Your task to perform on an android device: find which apps use the phone's location Image 0: 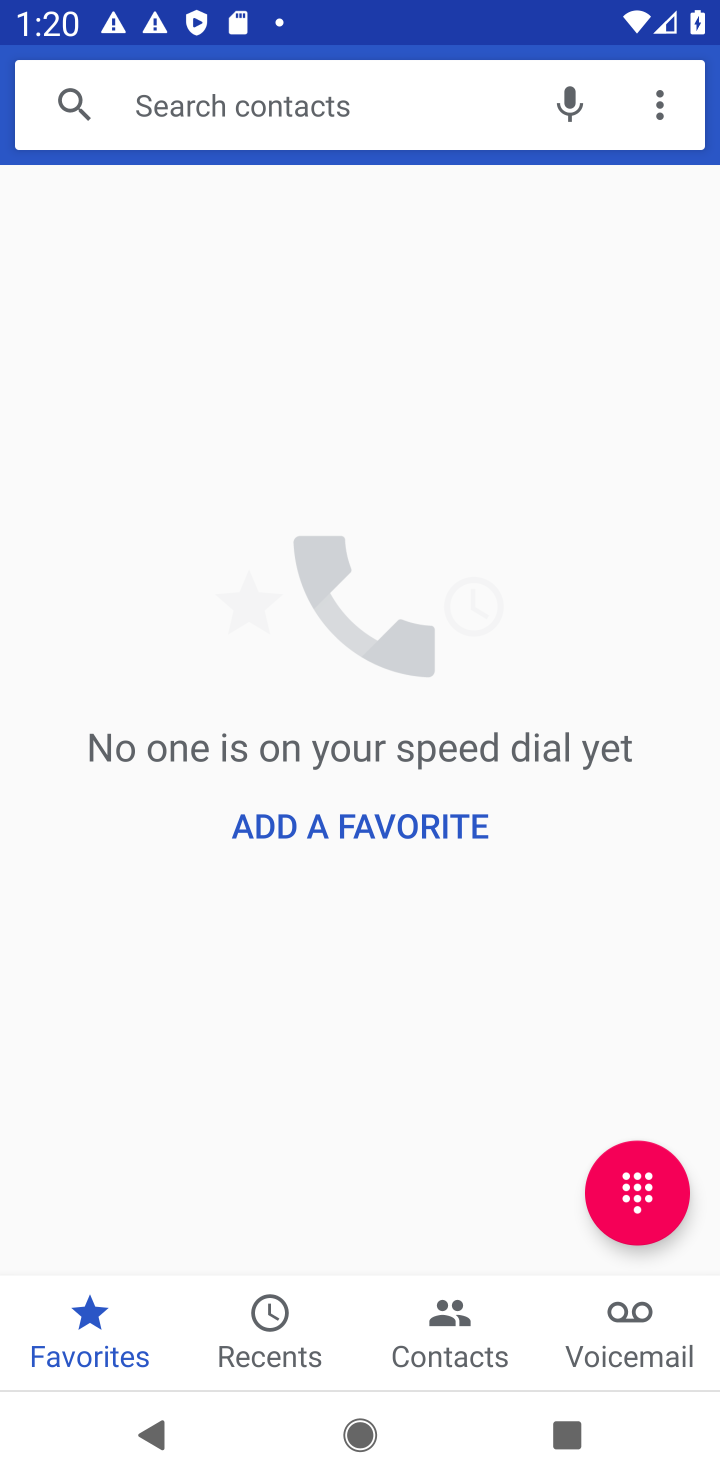
Step 0: press home button
Your task to perform on an android device: find which apps use the phone's location Image 1: 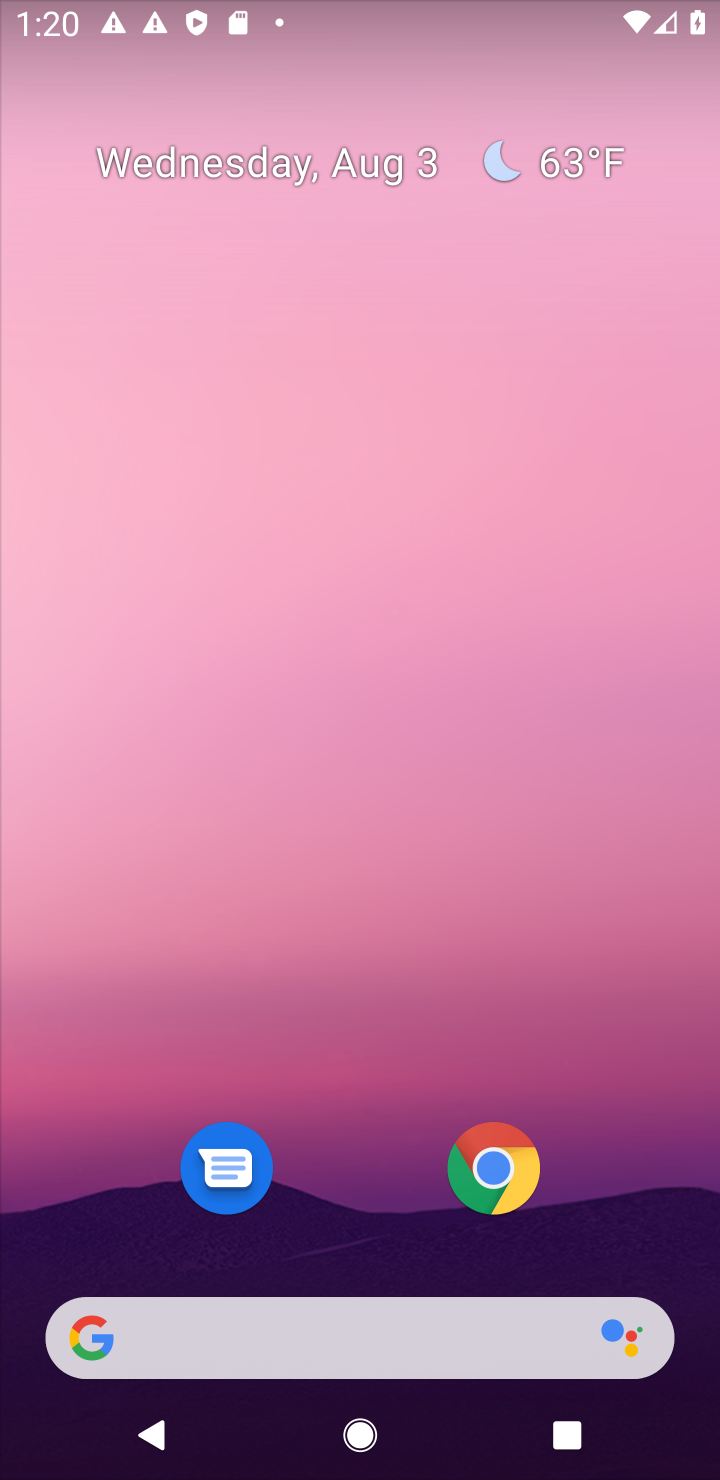
Step 1: drag from (615, 1218) to (564, 428)
Your task to perform on an android device: find which apps use the phone's location Image 2: 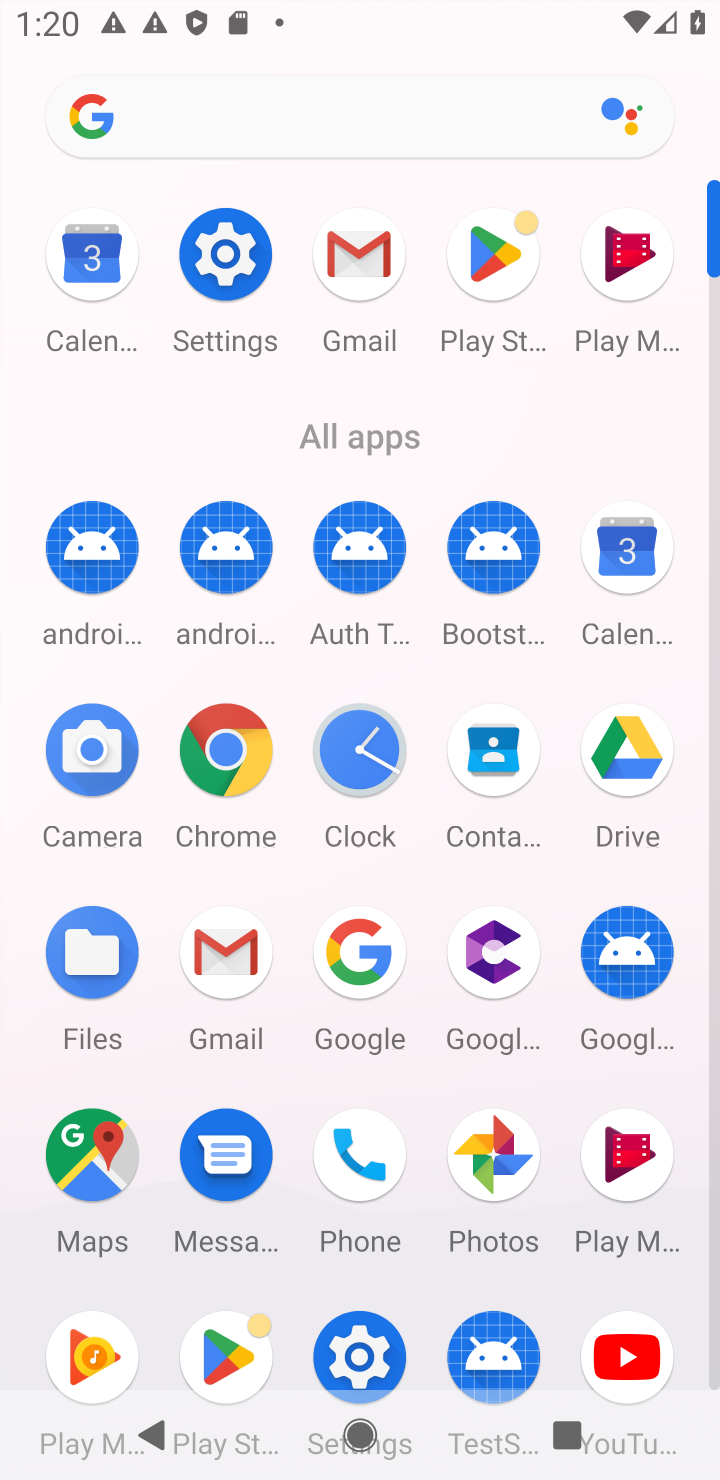
Step 2: click (351, 1344)
Your task to perform on an android device: find which apps use the phone's location Image 3: 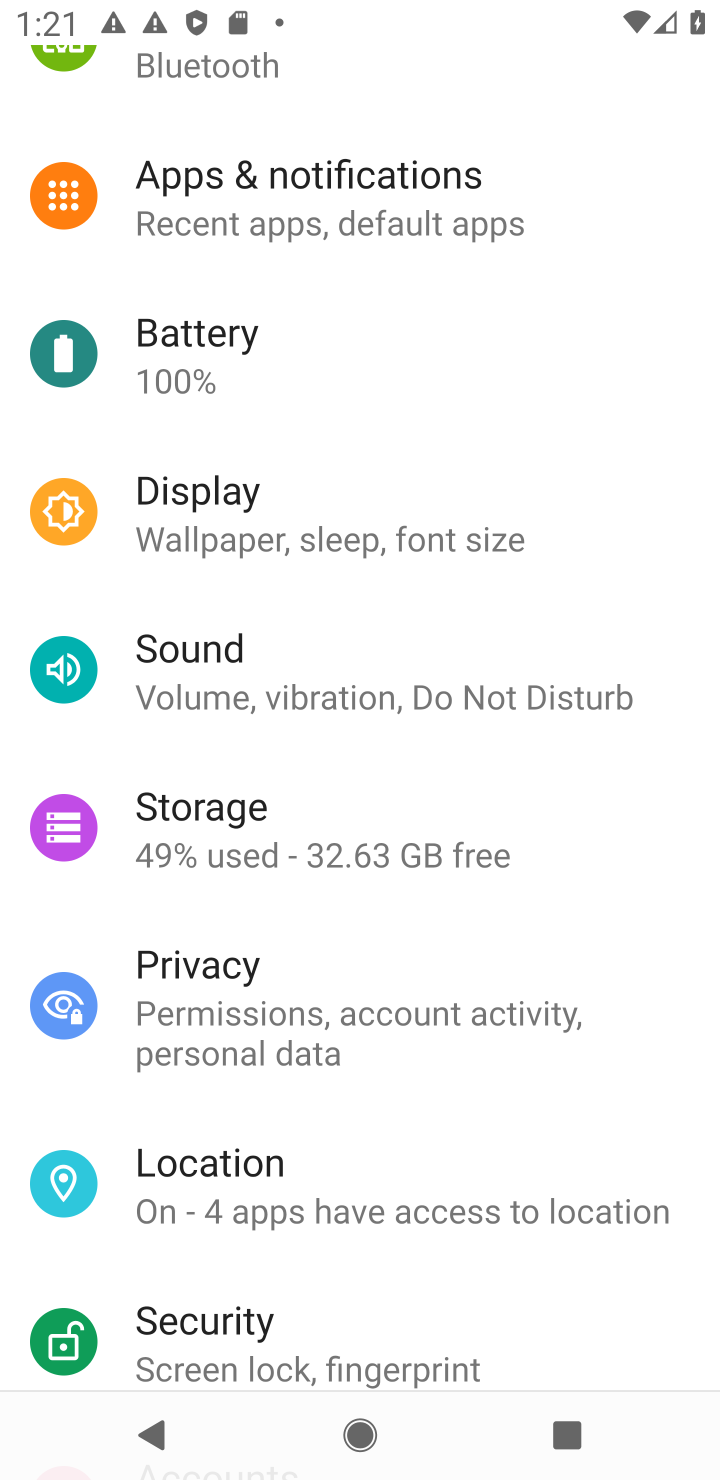
Step 3: click (232, 1157)
Your task to perform on an android device: find which apps use the phone's location Image 4: 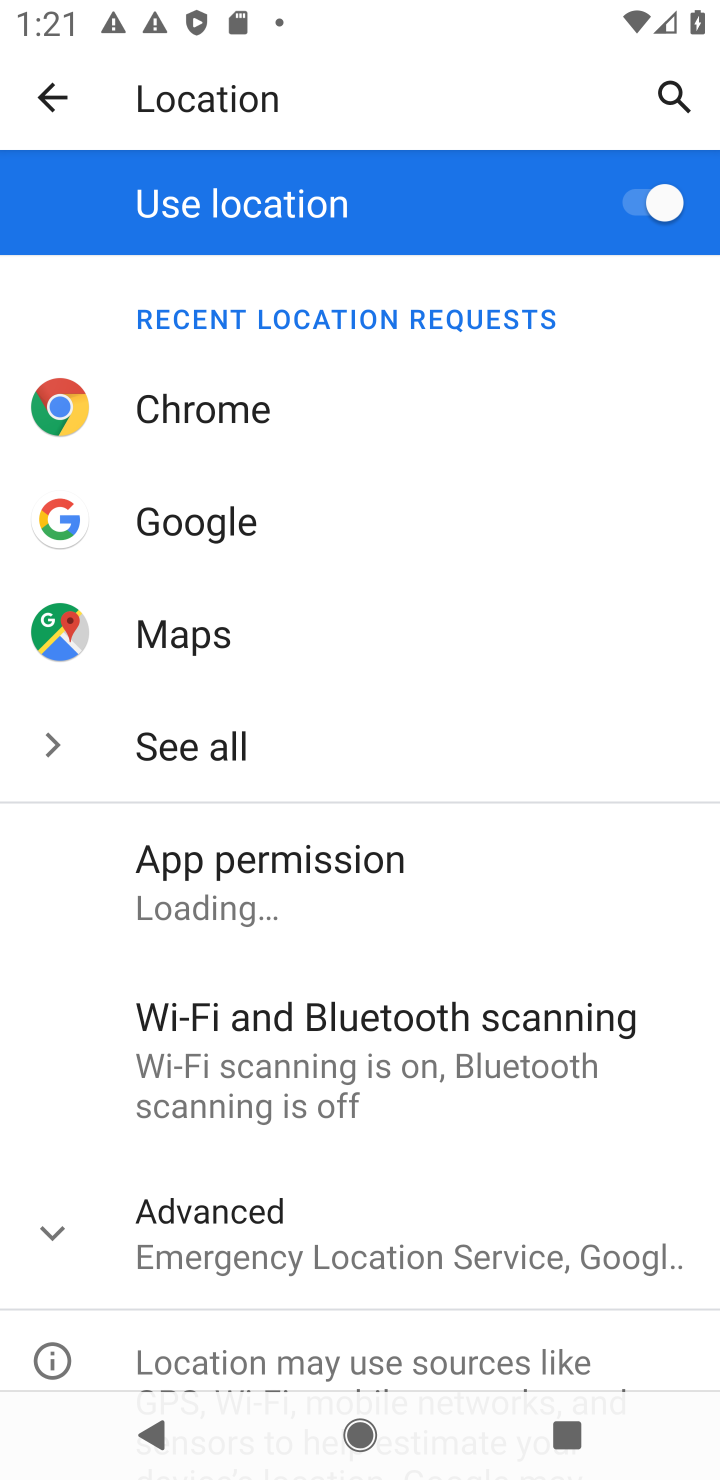
Step 4: click (41, 1231)
Your task to perform on an android device: find which apps use the phone's location Image 5: 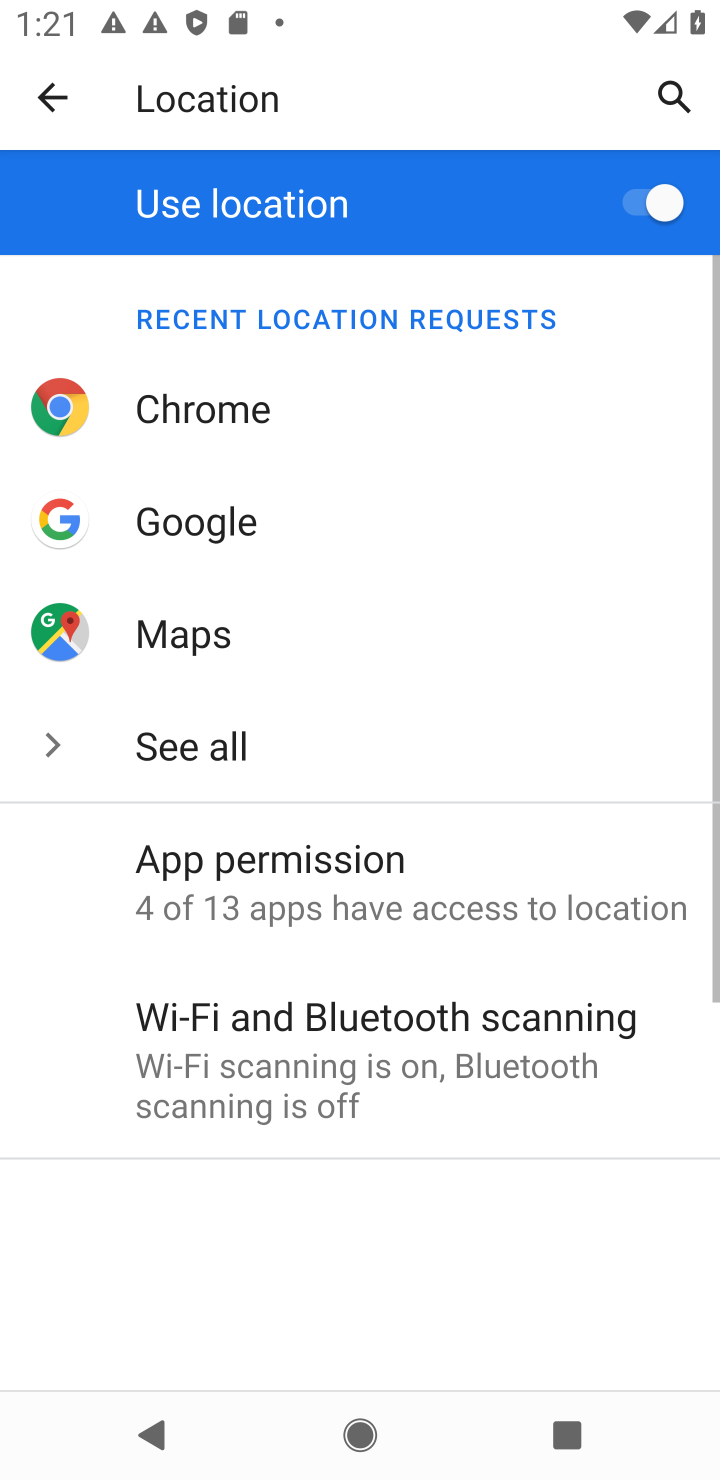
Step 5: click (235, 896)
Your task to perform on an android device: find which apps use the phone's location Image 6: 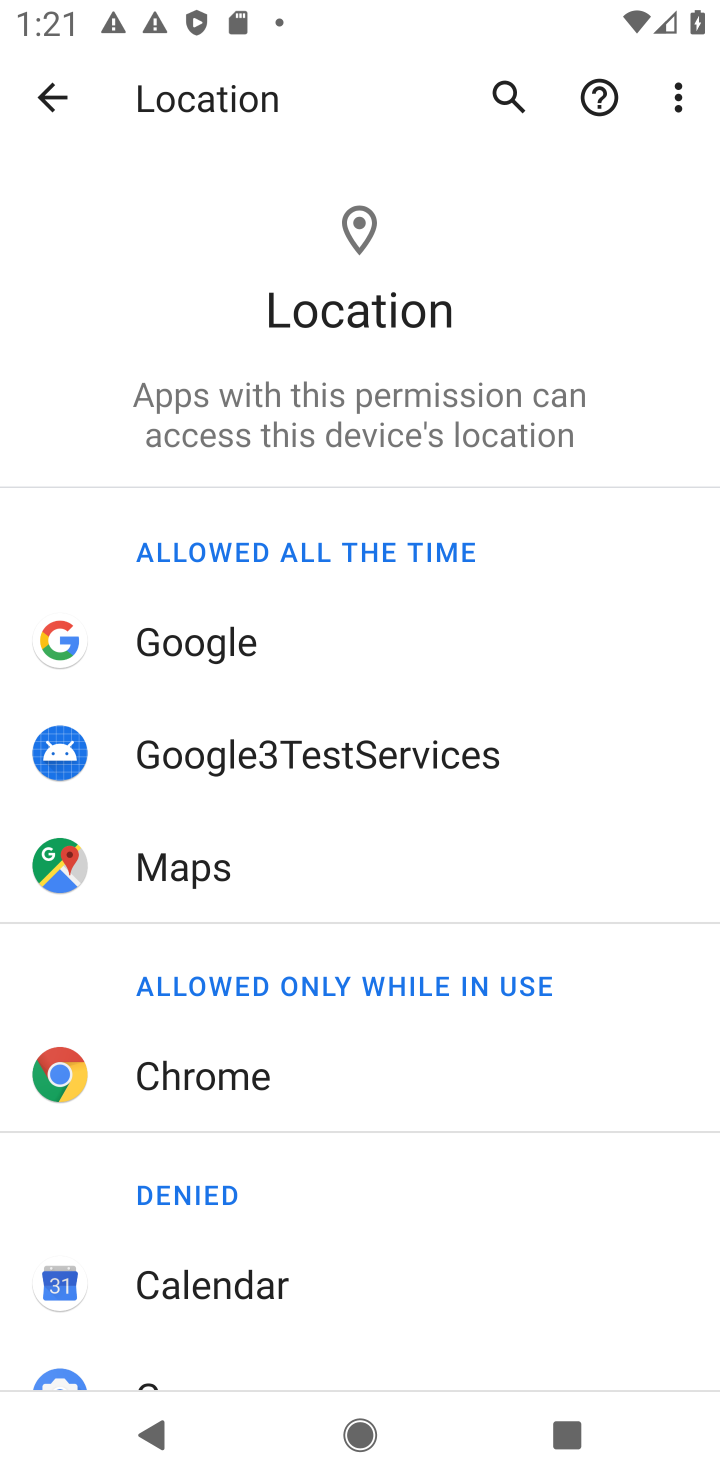
Step 6: drag from (521, 1196) to (507, 420)
Your task to perform on an android device: find which apps use the phone's location Image 7: 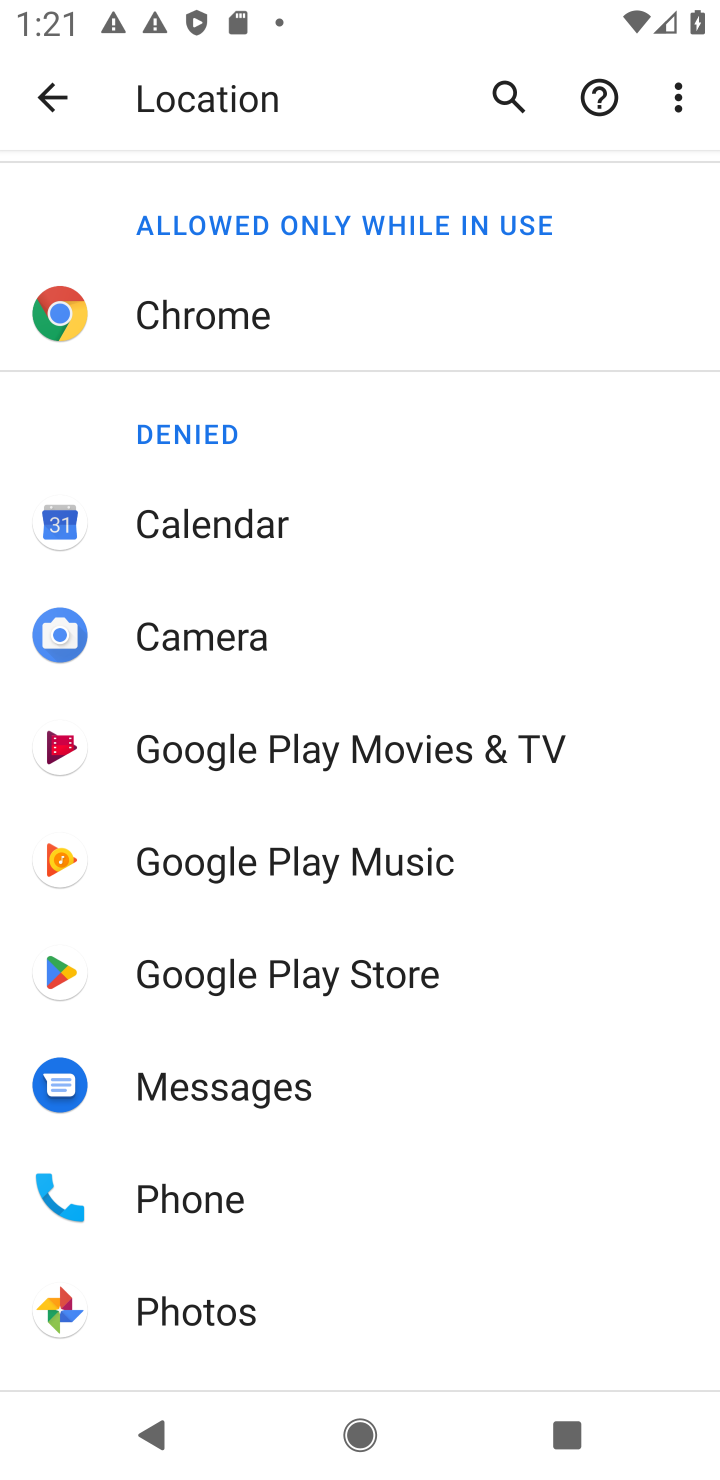
Step 7: click (164, 1189)
Your task to perform on an android device: find which apps use the phone's location Image 8: 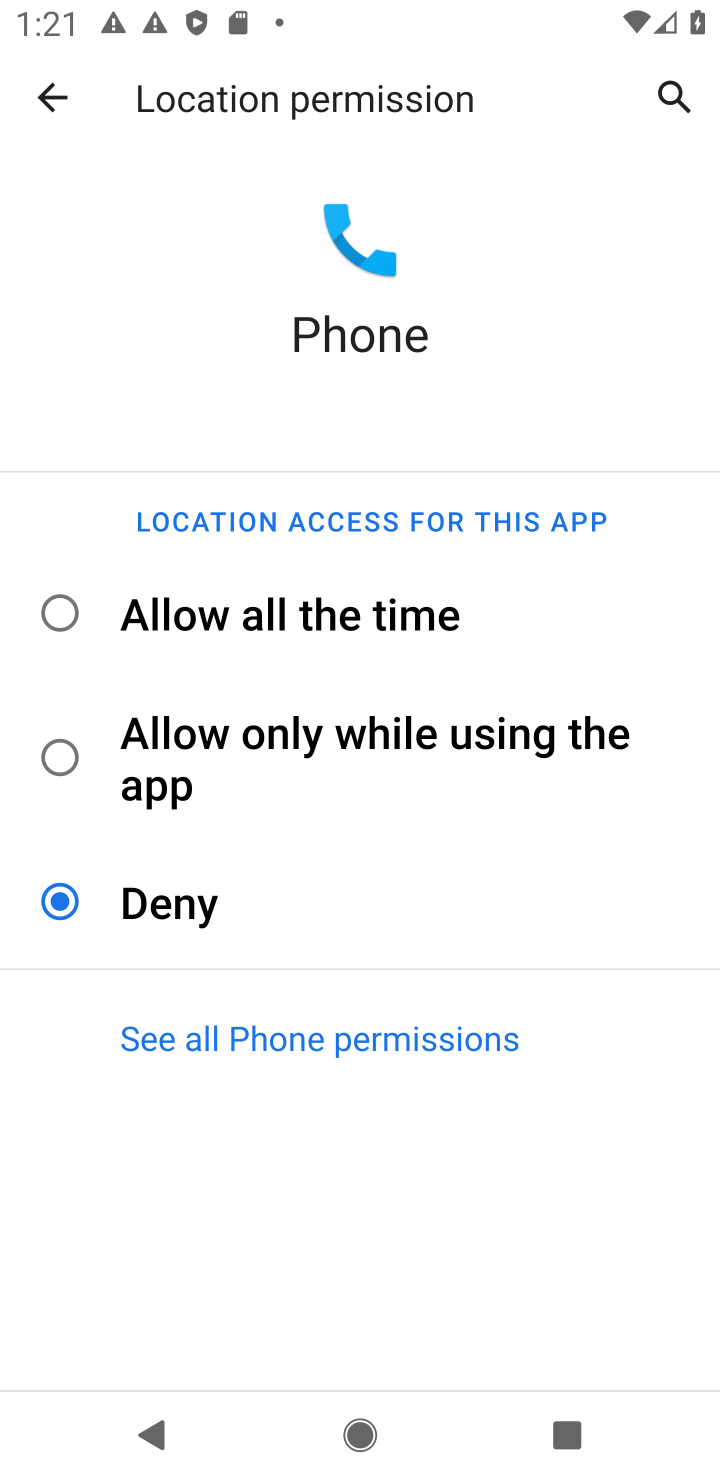
Step 8: task complete